Your task to perform on an android device: Open Chrome and go to settings Image 0: 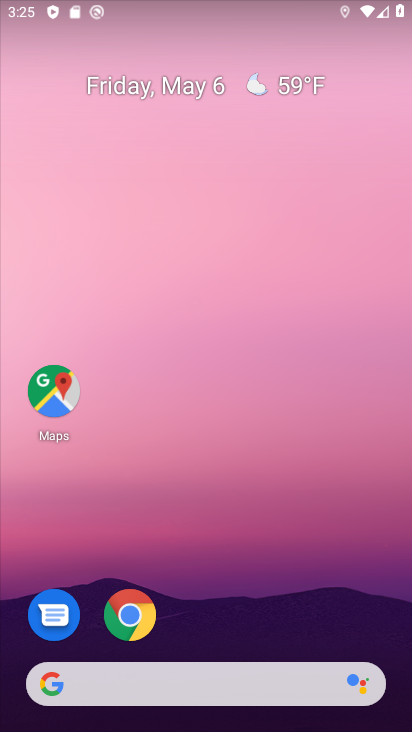
Step 0: click (135, 620)
Your task to perform on an android device: Open Chrome and go to settings Image 1: 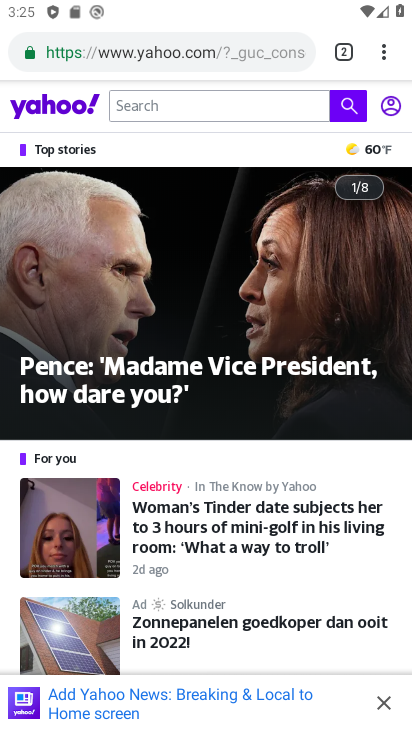
Step 1: click (389, 54)
Your task to perform on an android device: Open Chrome and go to settings Image 2: 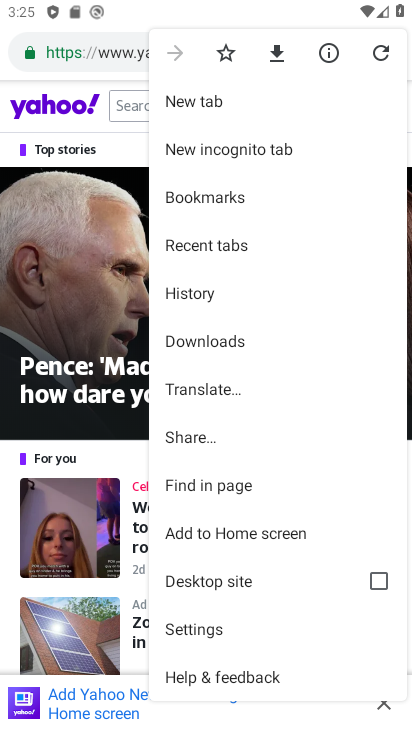
Step 2: click (203, 628)
Your task to perform on an android device: Open Chrome and go to settings Image 3: 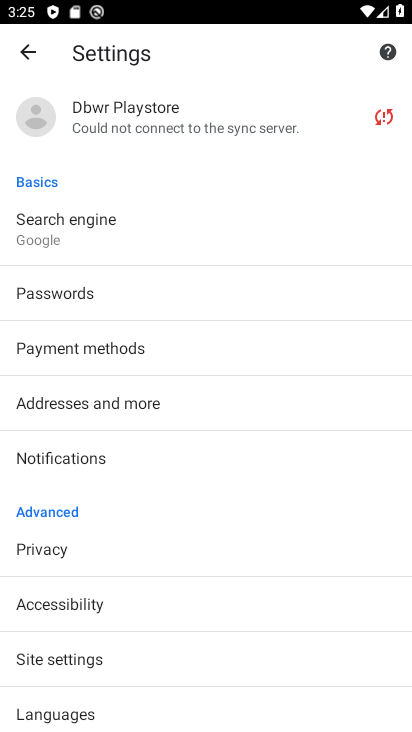
Step 3: task complete